Your task to perform on an android device: Go to Android settings Image 0: 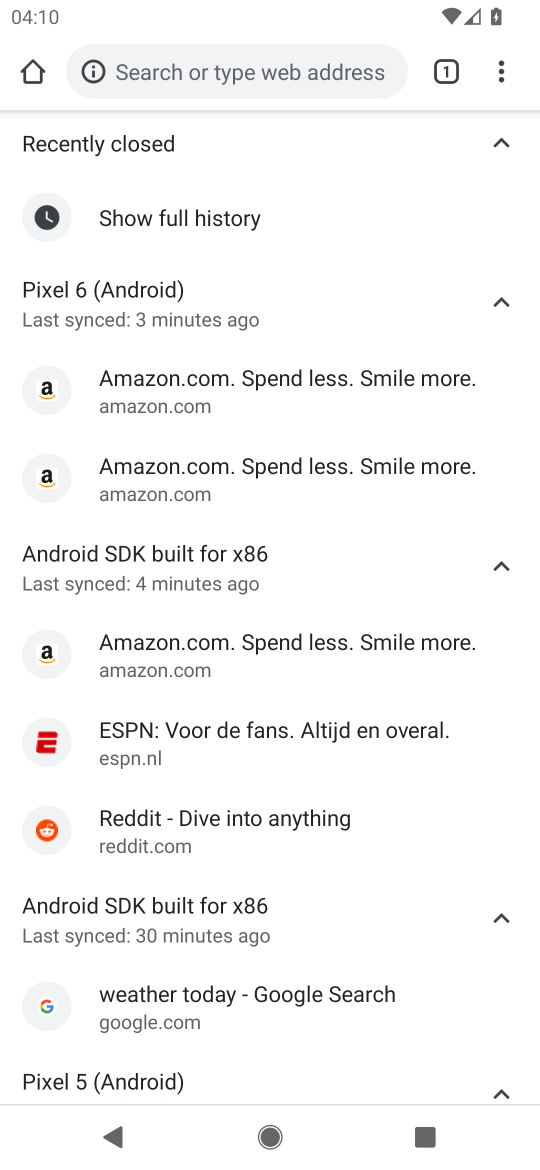
Step 0: press back button
Your task to perform on an android device: Go to Android settings Image 1: 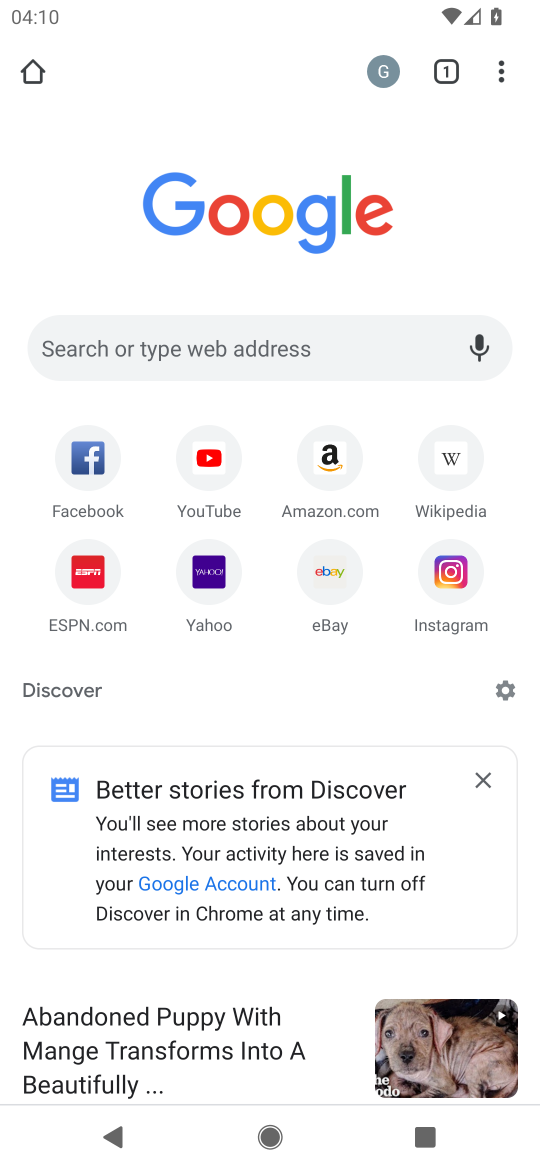
Step 1: press back button
Your task to perform on an android device: Go to Android settings Image 2: 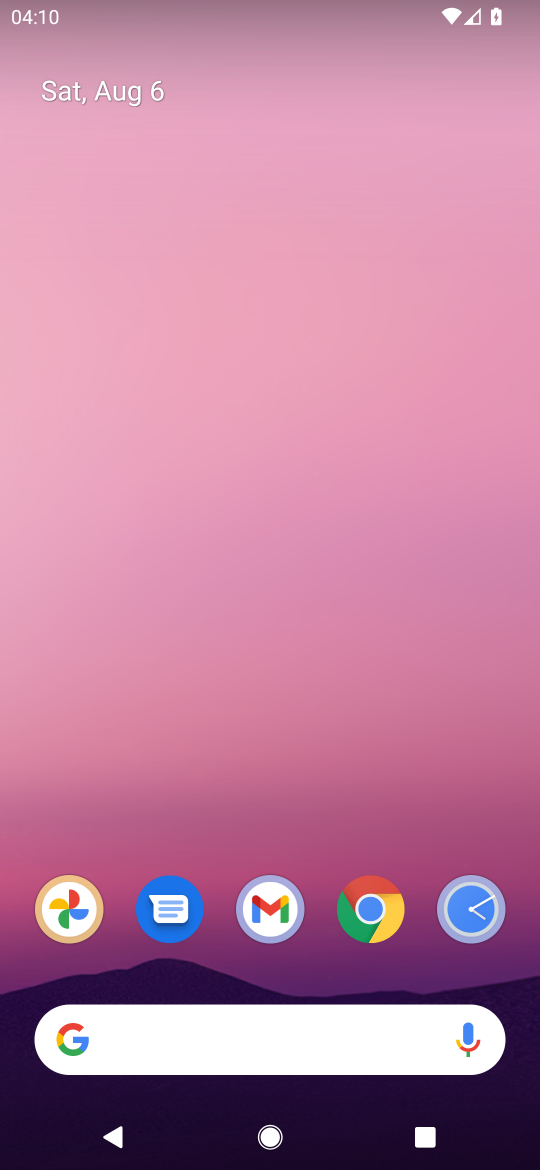
Step 2: drag from (230, 822) to (331, 48)
Your task to perform on an android device: Go to Android settings Image 3: 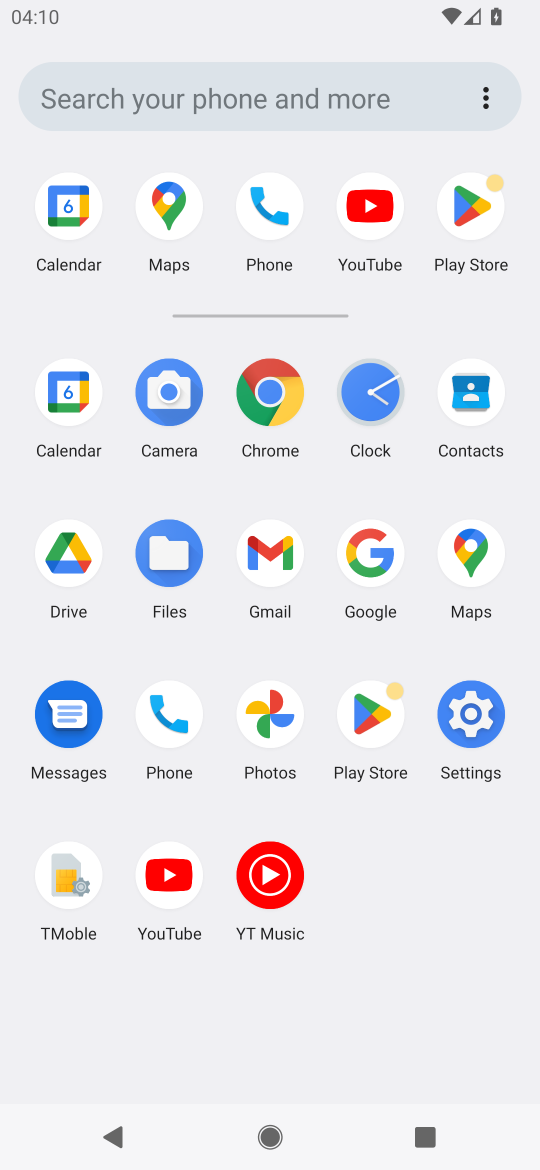
Step 3: click (517, 777)
Your task to perform on an android device: Go to Android settings Image 4: 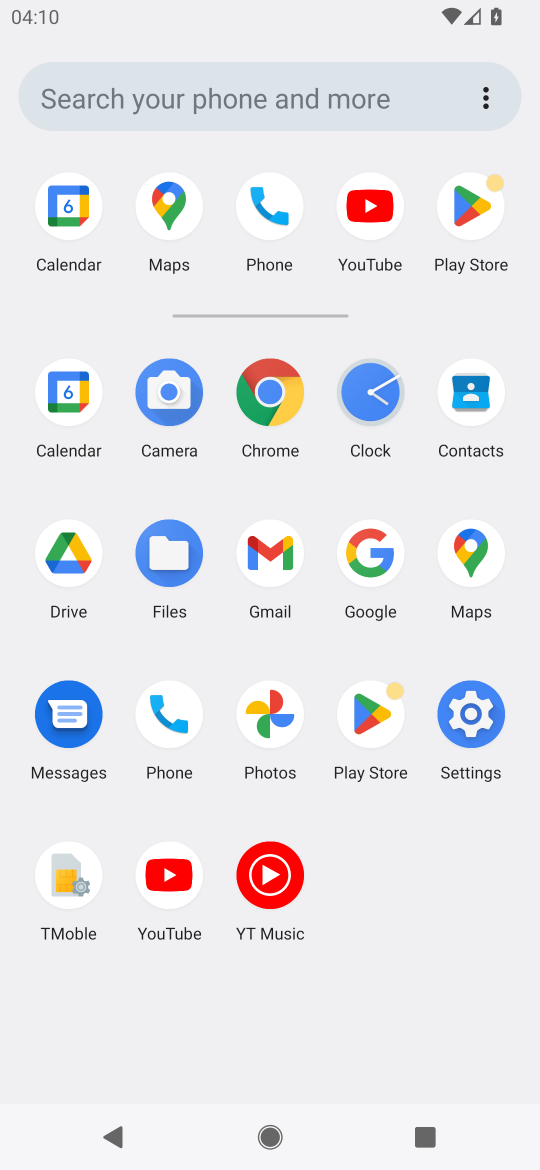
Step 4: click (502, 708)
Your task to perform on an android device: Go to Android settings Image 5: 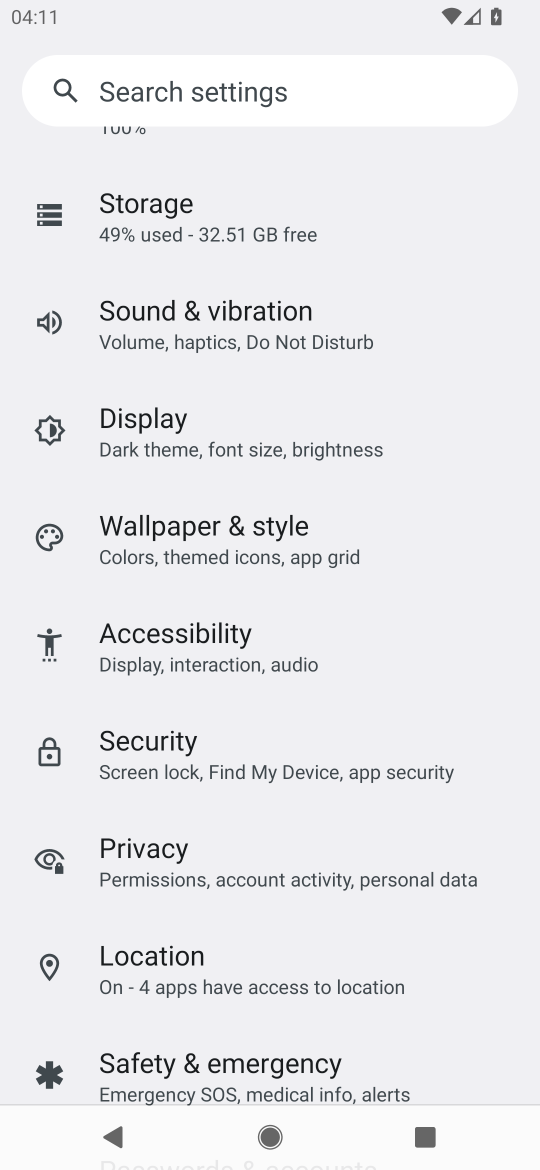
Step 5: drag from (215, 1005) to (291, 519)
Your task to perform on an android device: Go to Android settings Image 6: 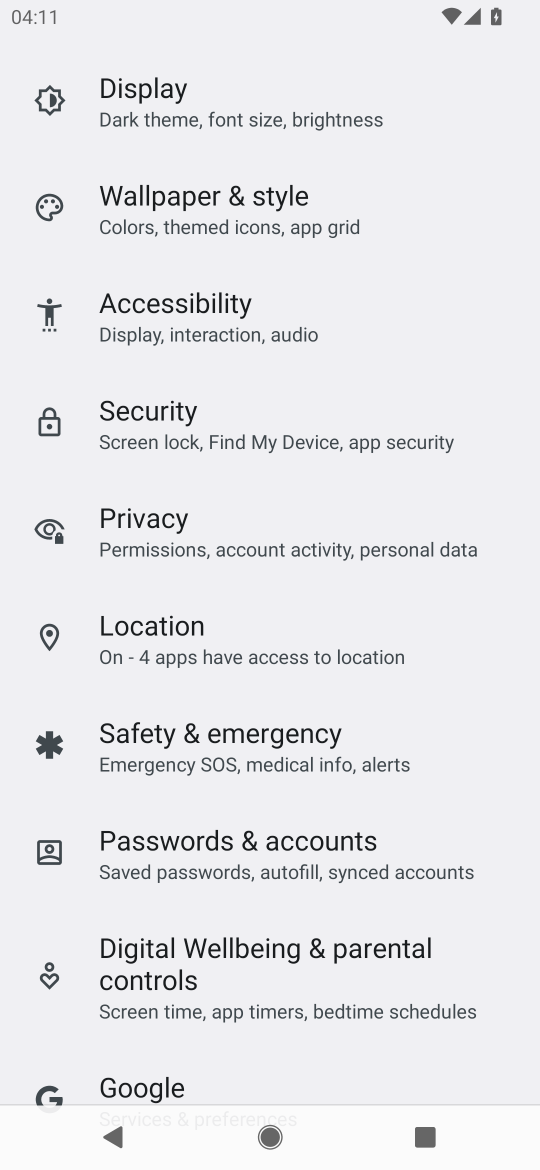
Step 6: drag from (203, 1009) to (297, 3)
Your task to perform on an android device: Go to Android settings Image 7: 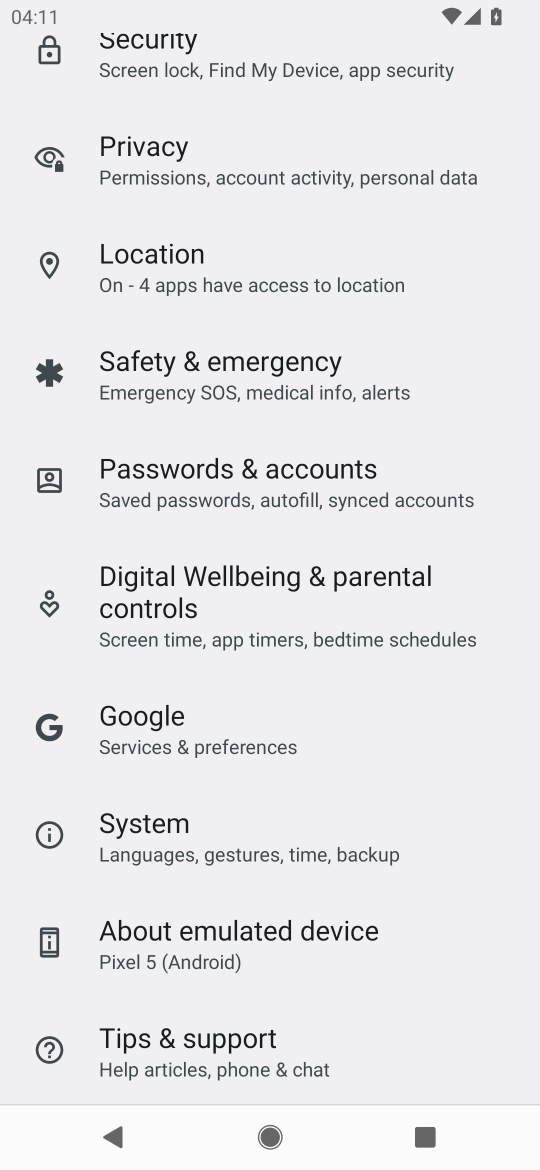
Step 7: drag from (301, 1030) to (429, 39)
Your task to perform on an android device: Go to Android settings Image 8: 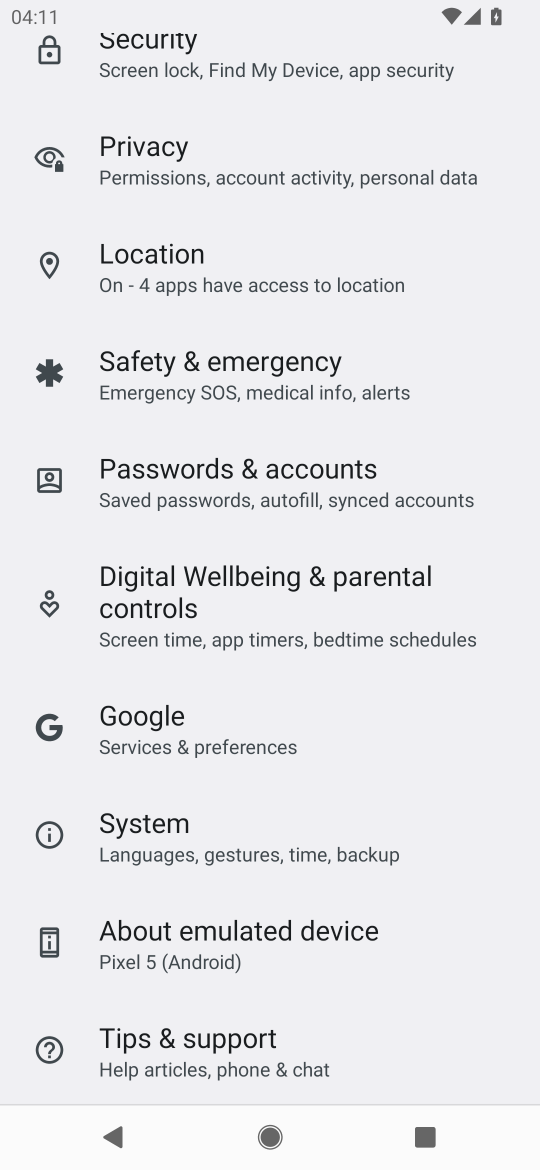
Step 8: drag from (230, 869) to (371, 21)
Your task to perform on an android device: Go to Android settings Image 9: 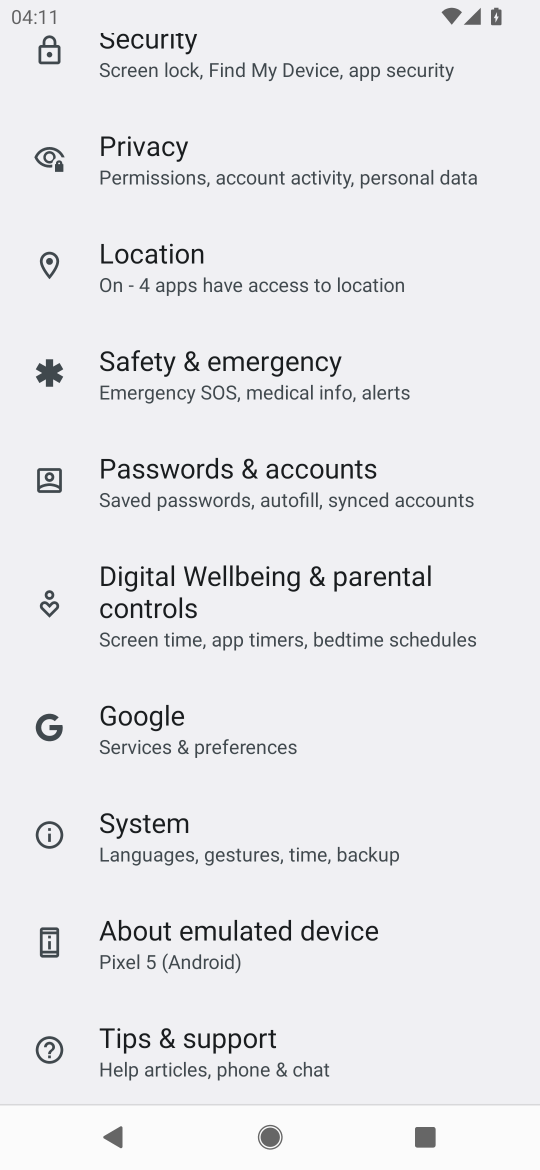
Step 9: drag from (246, 892) to (377, 54)
Your task to perform on an android device: Go to Android settings Image 10: 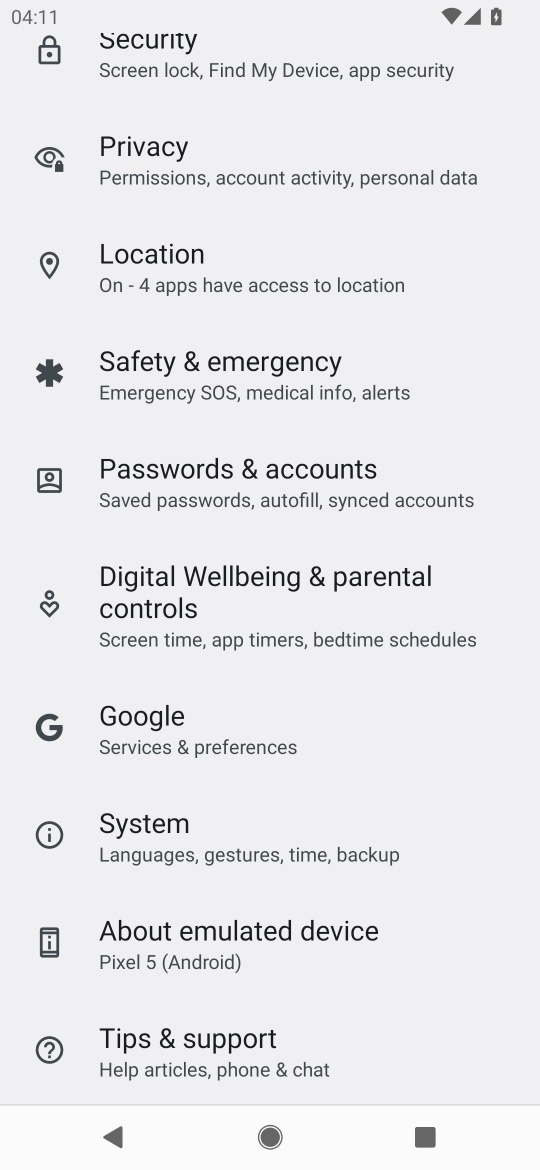
Step 10: drag from (261, 991) to (334, 6)
Your task to perform on an android device: Go to Android settings Image 11: 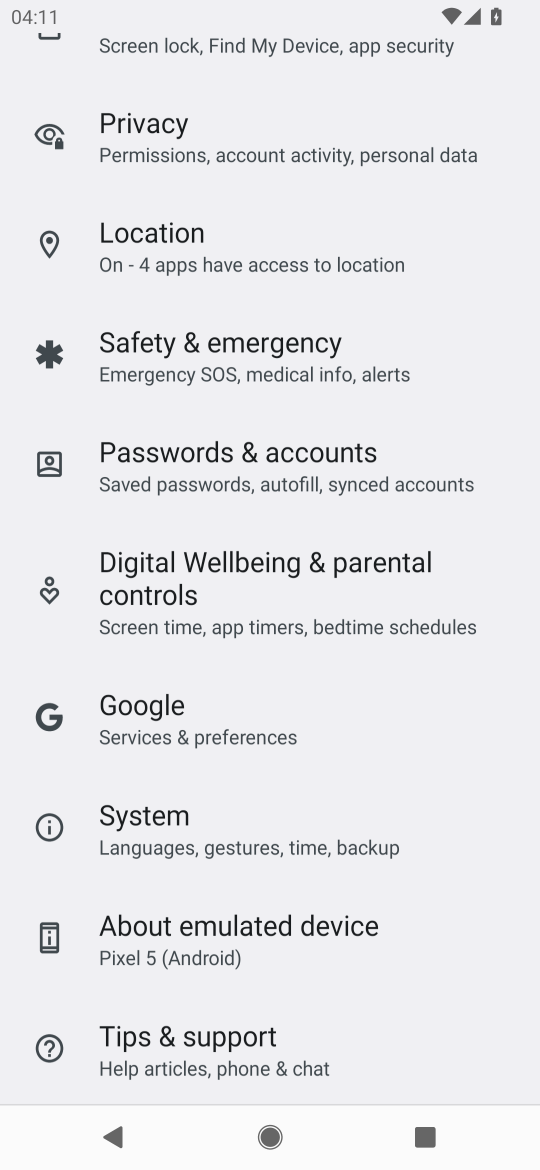
Step 11: drag from (309, 364) to (298, 1159)
Your task to perform on an android device: Go to Android settings Image 12: 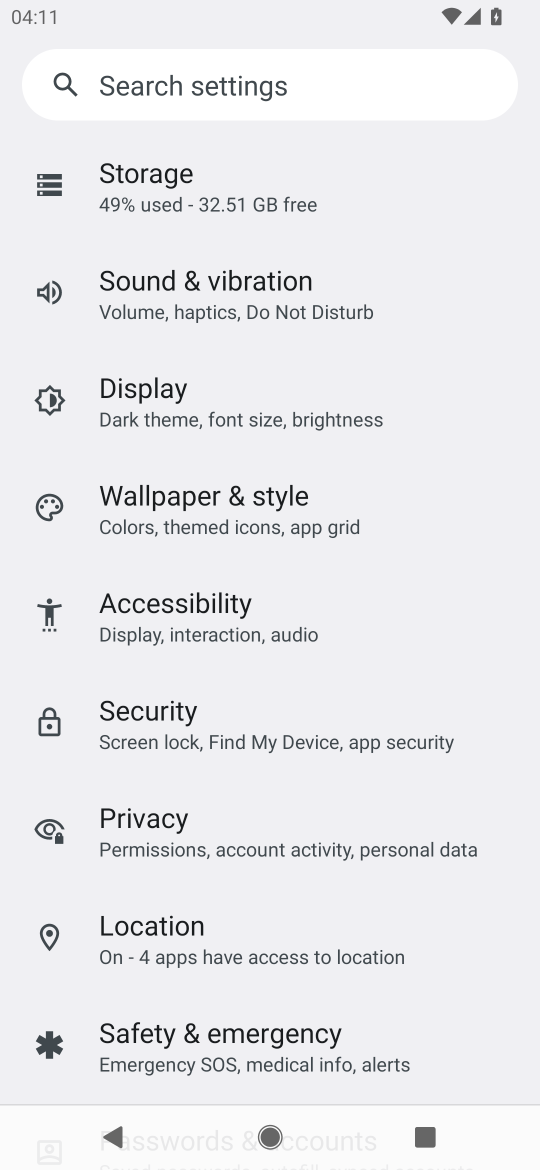
Step 12: drag from (268, 203) to (270, 1168)
Your task to perform on an android device: Go to Android settings Image 13: 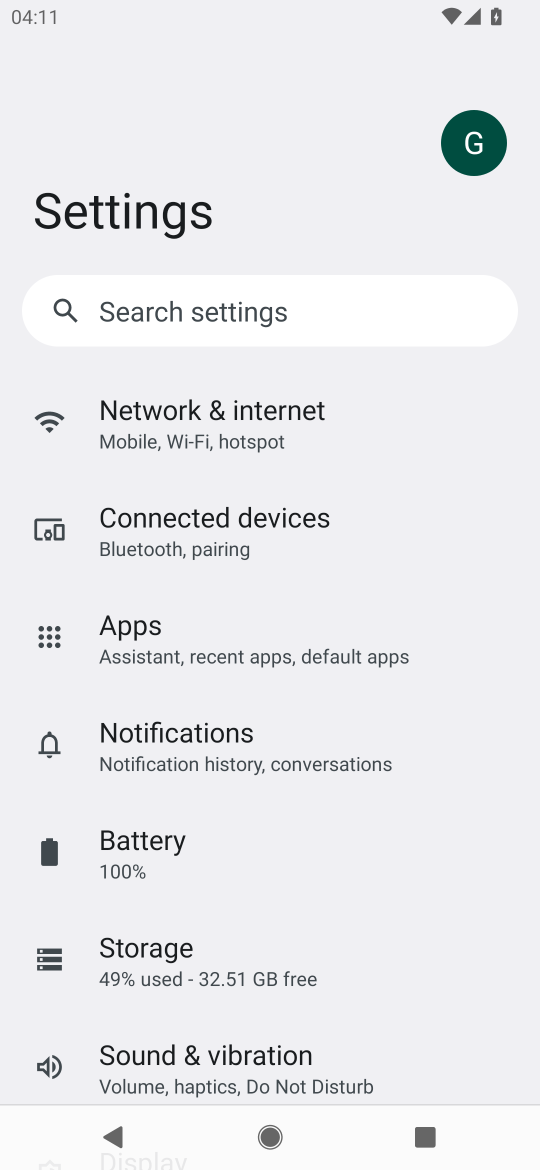
Step 13: drag from (232, 973) to (453, 77)
Your task to perform on an android device: Go to Android settings Image 14: 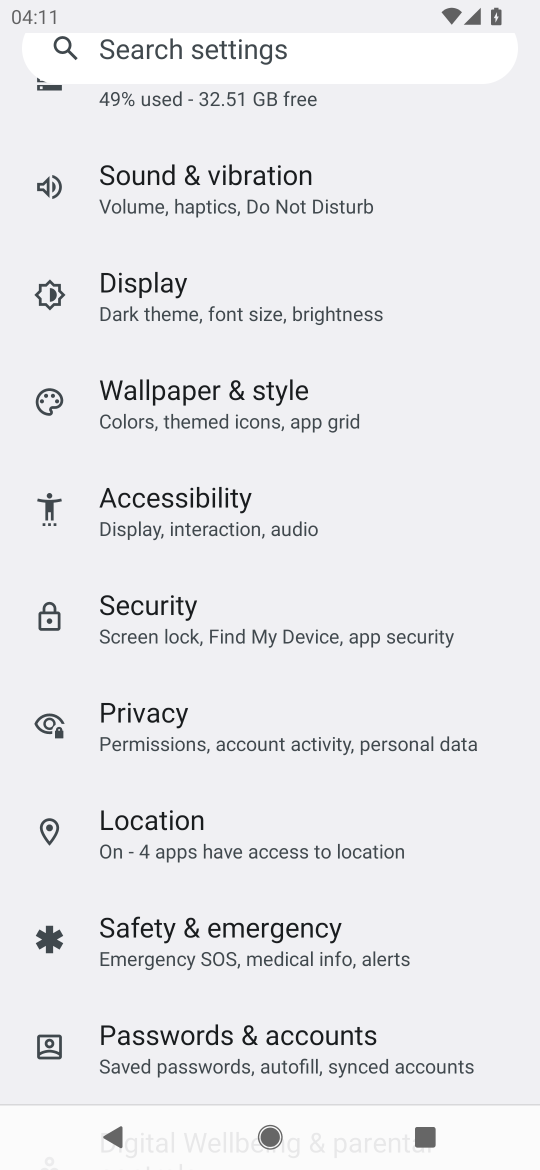
Step 14: drag from (280, 830) to (345, 42)
Your task to perform on an android device: Go to Android settings Image 15: 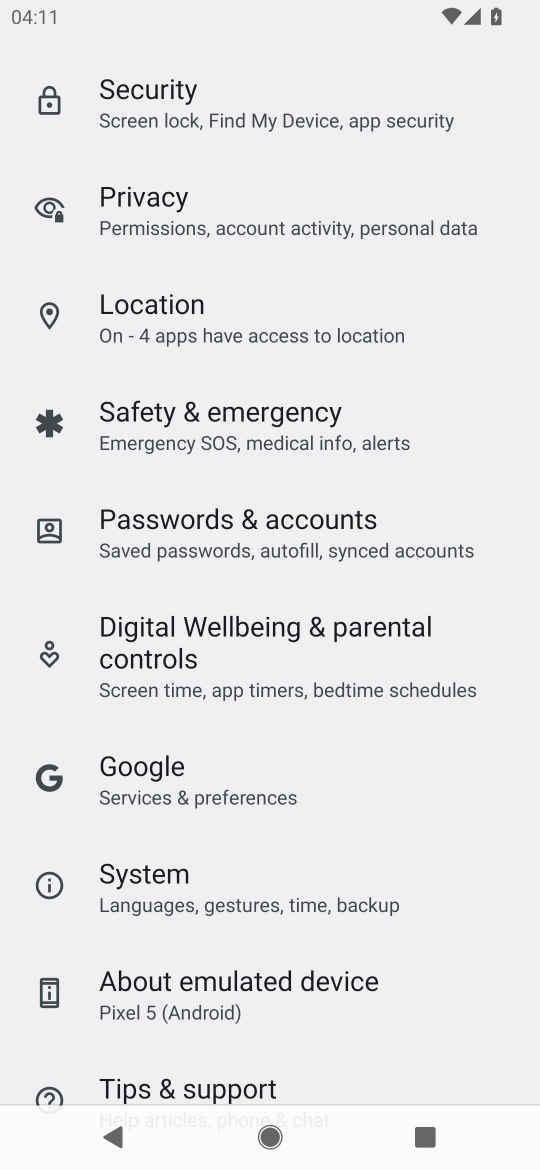
Step 15: drag from (259, 1040) to (464, 37)
Your task to perform on an android device: Go to Android settings Image 16: 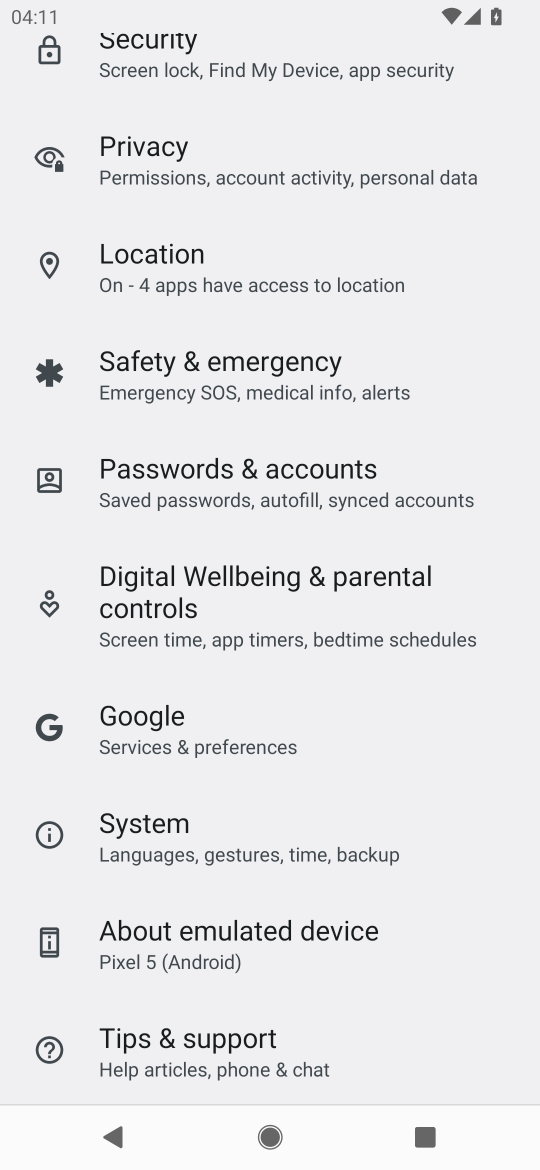
Step 16: drag from (201, 1087) to (367, 1)
Your task to perform on an android device: Go to Android settings Image 17: 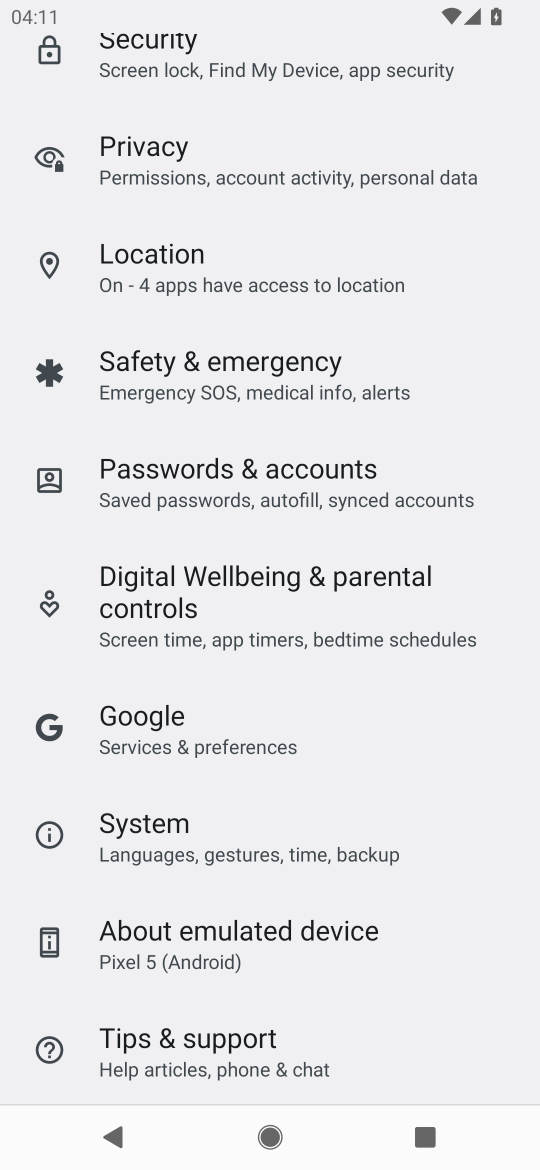
Step 17: drag from (291, 571) to (384, 103)
Your task to perform on an android device: Go to Android settings Image 18: 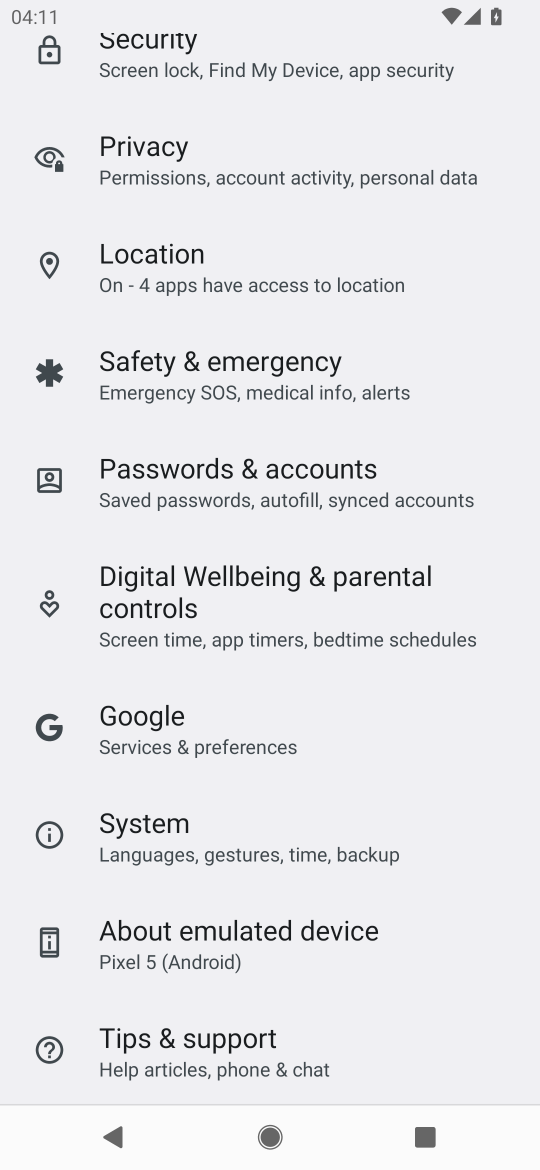
Step 18: click (248, 926)
Your task to perform on an android device: Go to Android settings Image 19: 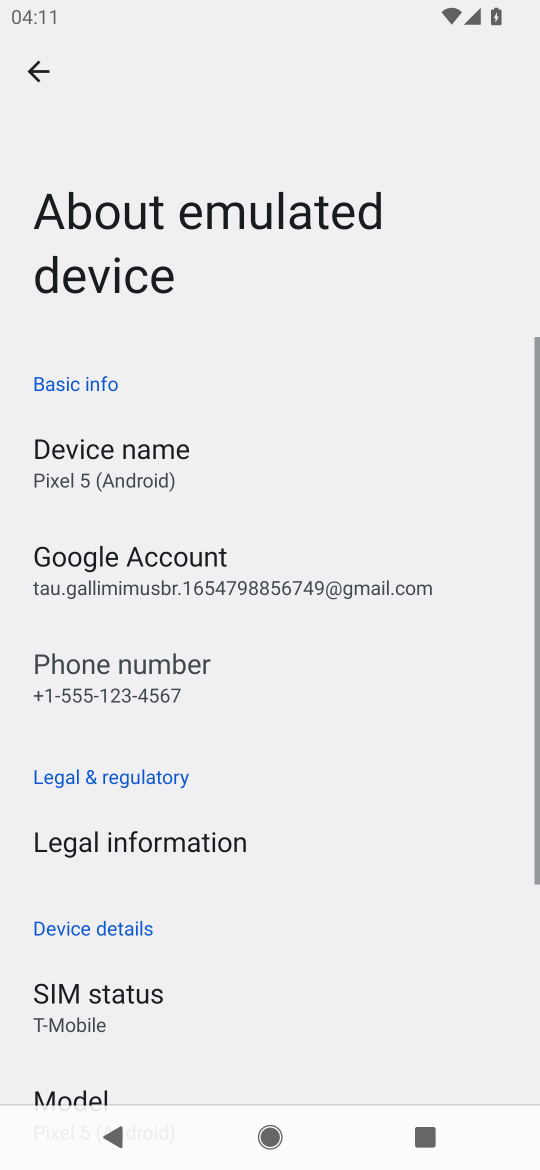
Step 19: drag from (215, 1019) to (319, 82)
Your task to perform on an android device: Go to Android settings Image 20: 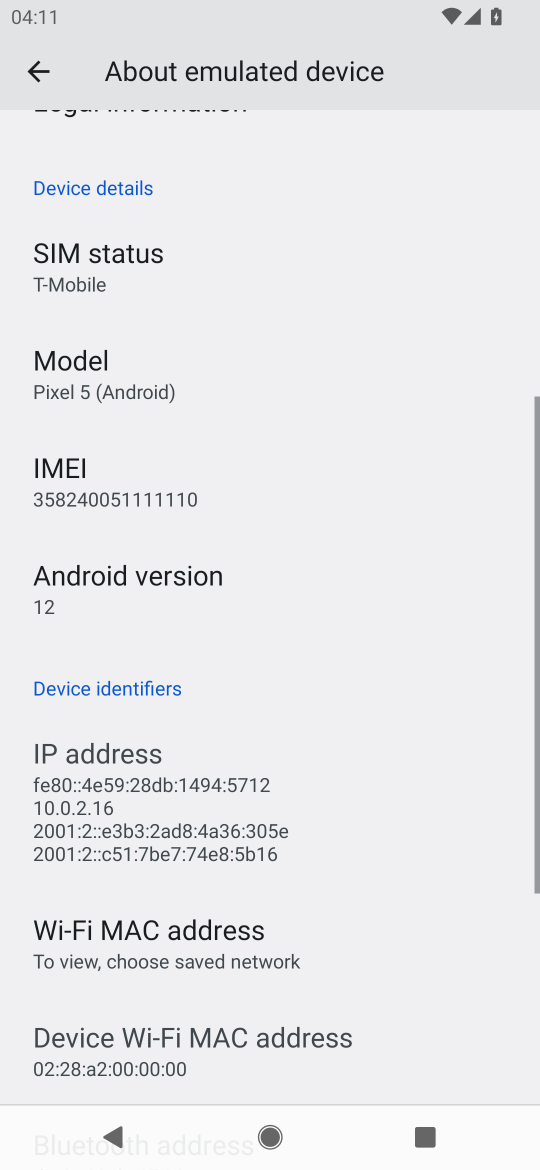
Step 20: click (125, 593)
Your task to perform on an android device: Go to Android settings Image 21: 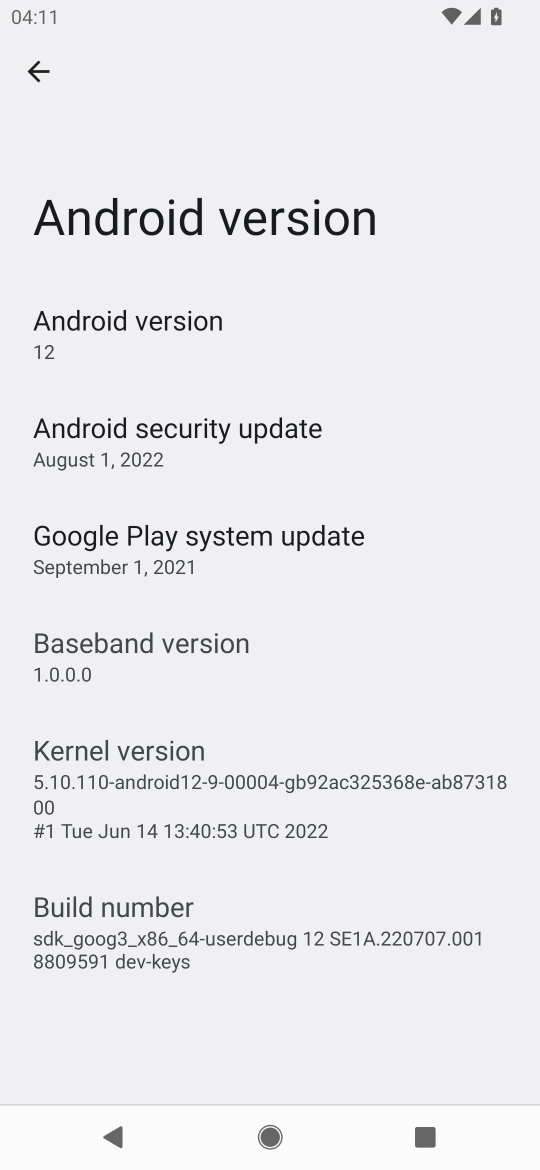
Step 21: task complete